Your task to perform on an android device: turn off translation in the chrome app Image 0: 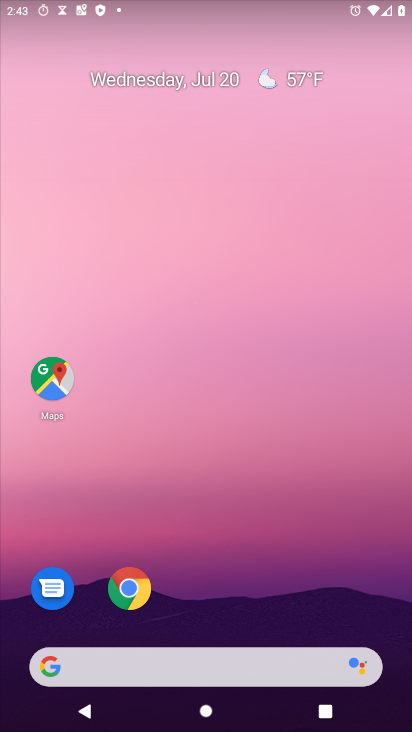
Step 0: drag from (354, 484) to (380, 1)
Your task to perform on an android device: turn off translation in the chrome app Image 1: 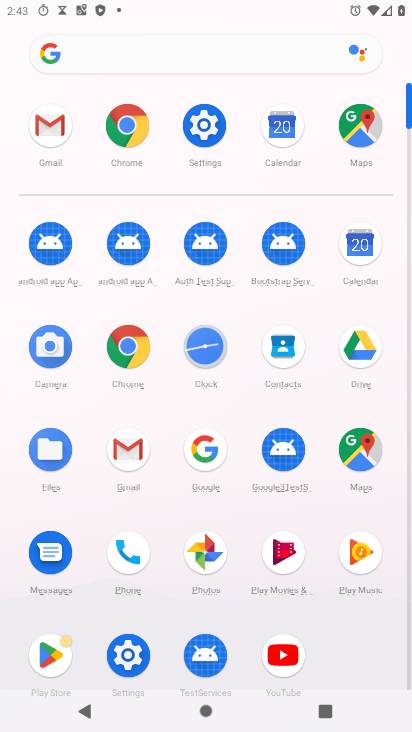
Step 1: click (131, 339)
Your task to perform on an android device: turn off translation in the chrome app Image 2: 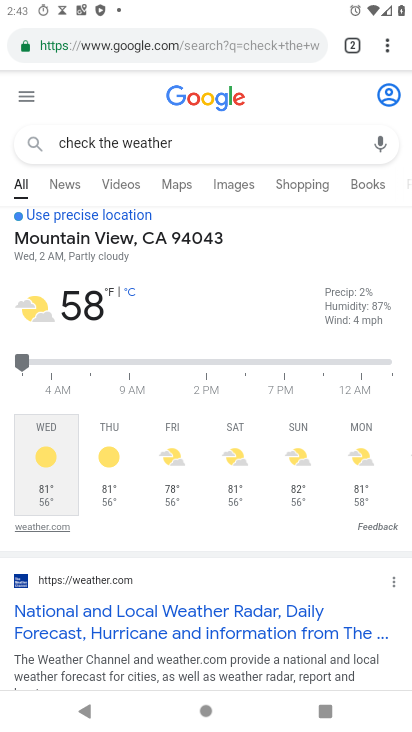
Step 2: drag from (393, 47) to (251, 497)
Your task to perform on an android device: turn off translation in the chrome app Image 3: 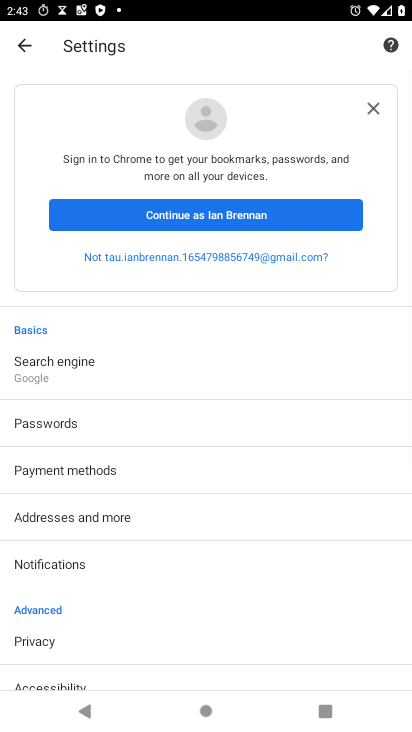
Step 3: drag from (108, 637) to (169, 44)
Your task to perform on an android device: turn off translation in the chrome app Image 4: 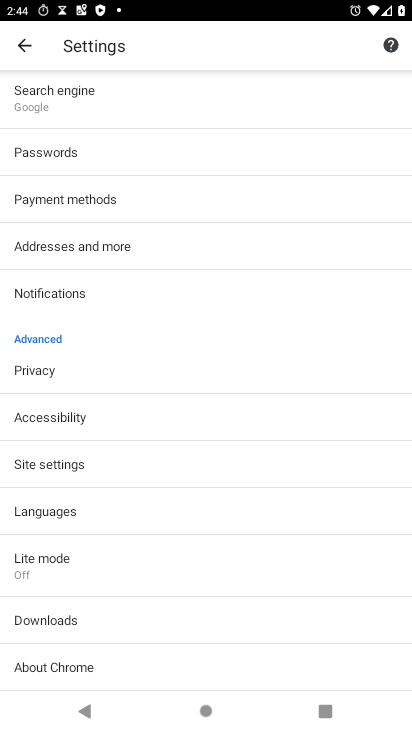
Step 4: click (101, 520)
Your task to perform on an android device: turn off translation in the chrome app Image 5: 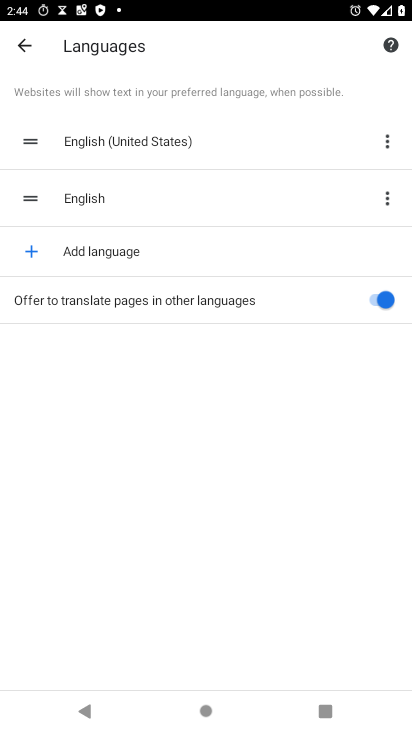
Step 5: click (379, 302)
Your task to perform on an android device: turn off translation in the chrome app Image 6: 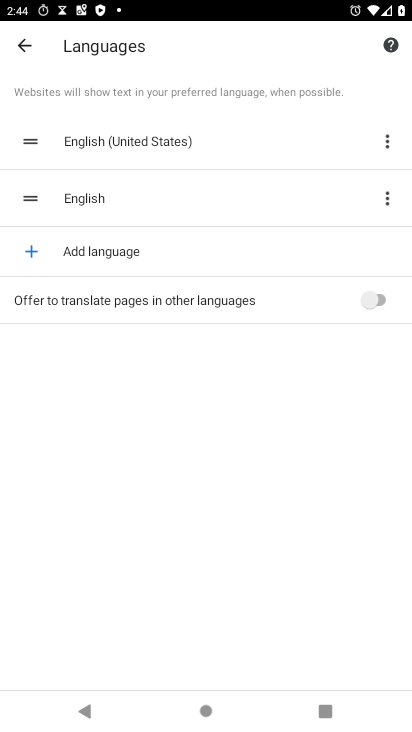
Step 6: task complete